Your task to perform on an android device: Go to notification settings Image 0: 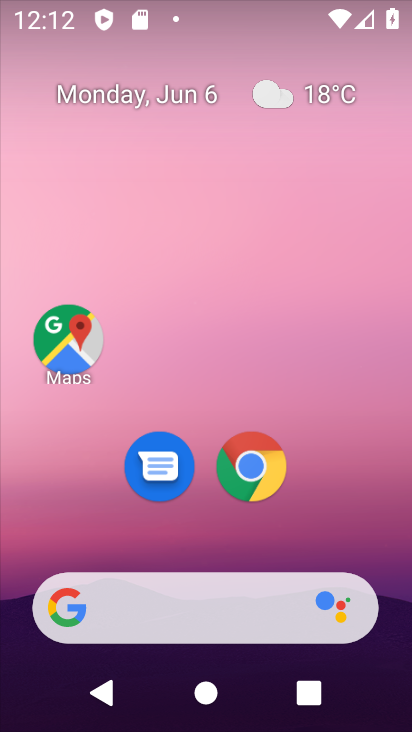
Step 0: drag from (373, 564) to (247, 44)
Your task to perform on an android device: Go to notification settings Image 1: 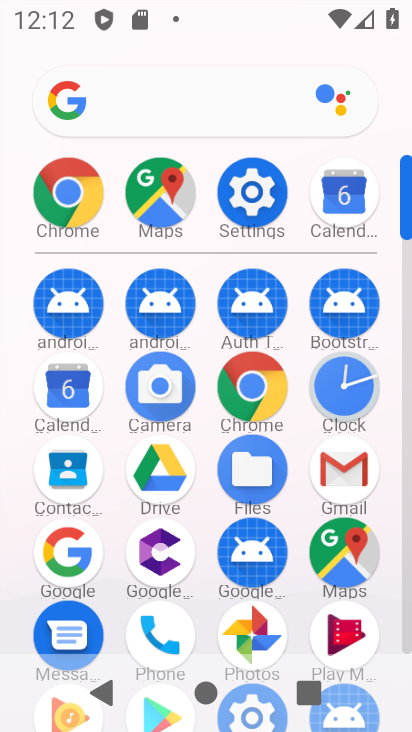
Step 1: drag from (18, 592) to (15, 265)
Your task to perform on an android device: Go to notification settings Image 2: 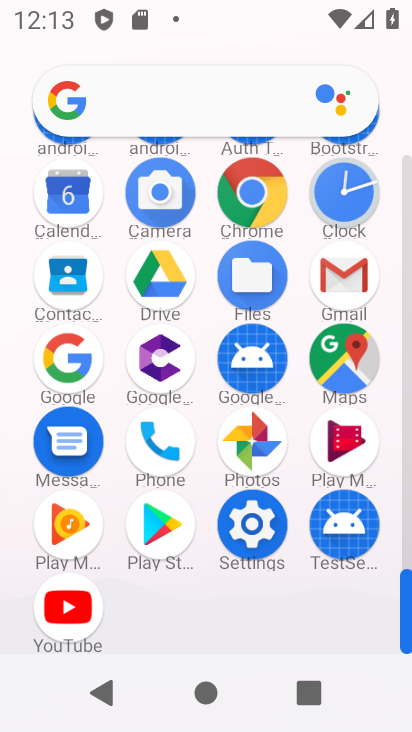
Step 2: click (248, 522)
Your task to perform on an android device: Go to notification settings Image 3: 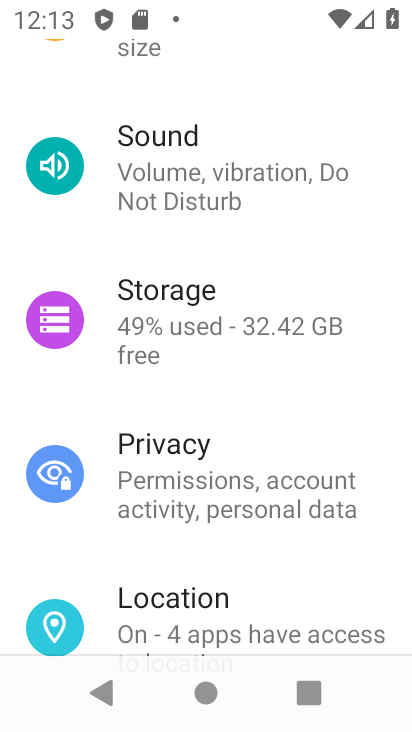
Step 3: drag from (279, 180) to (282, 560)
Your task to perform on an android device: Go to notification settings Image 4: 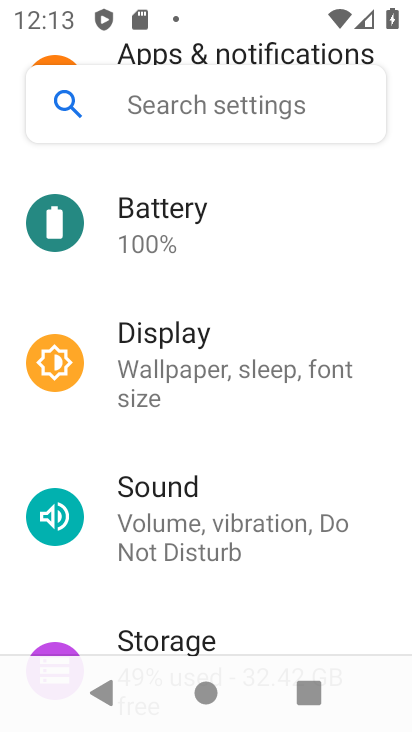
Step 4: drag from (251, 288) to (262, 618)
Your task to perform on an android device: Go to notification settings Image 5: 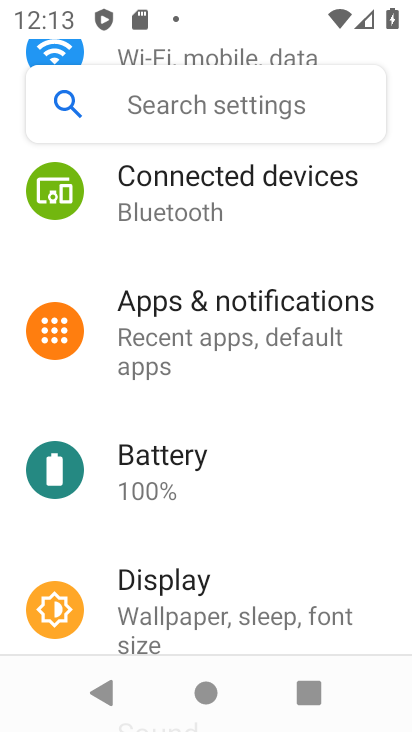
Step 5: click (247, 330)
Your task to perform on an android device: Go to notification settings Image 6: 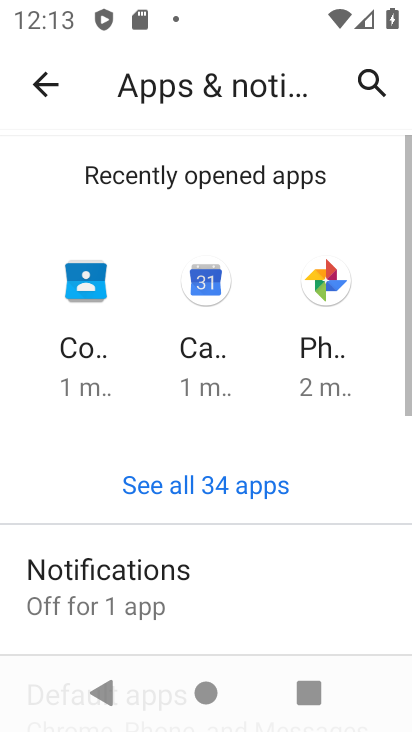
Step 6: drag from (260, 614) to (266, 218)
Your task to perform on an android device: Go to notification settings Image 7: 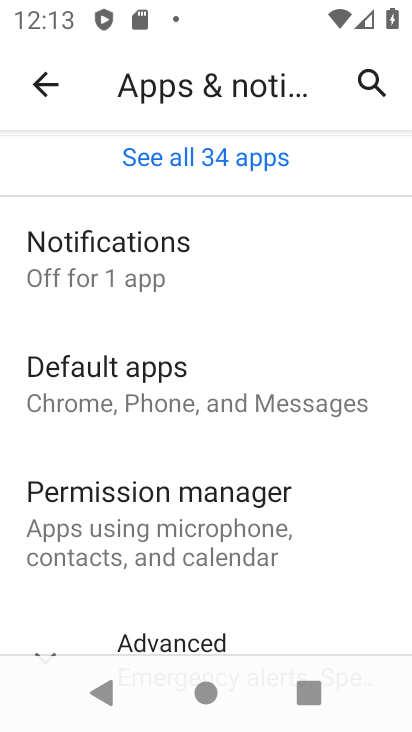
Step 7: click (155, 247)
Your task to perform on an android device: Go to notification settings Image 8: 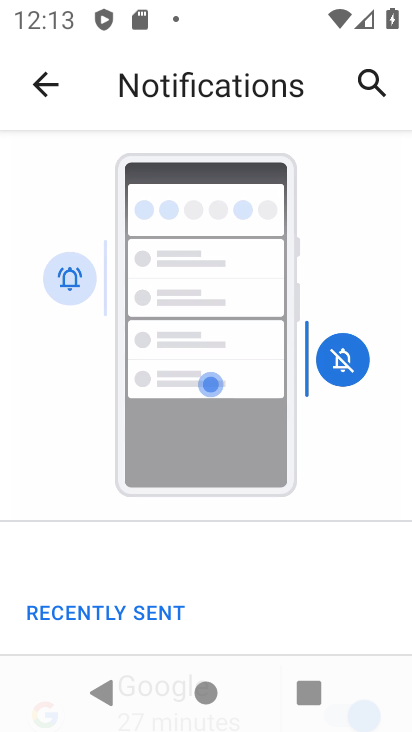
Step 8: drag from (211, 555) to (216, 176)
Your task to perform on an android device: Go to notification settings Image 9: 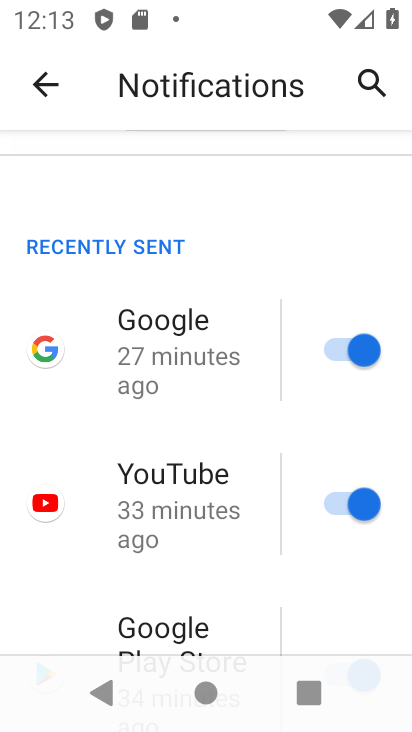
Step 9: drag from (211, 515) to (220, 165)
Your task to perform on an android device: Go to notification settings Image 10: 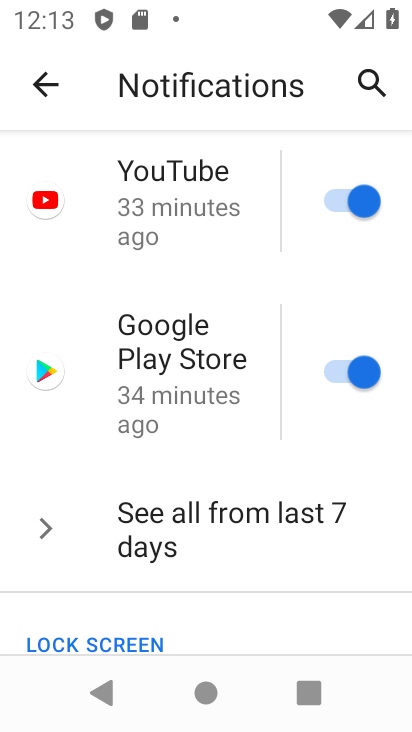
Step 10: drag from (214, 545) to (223, 160)
Your task to perform on an android device: Go to notification settings Image 11: 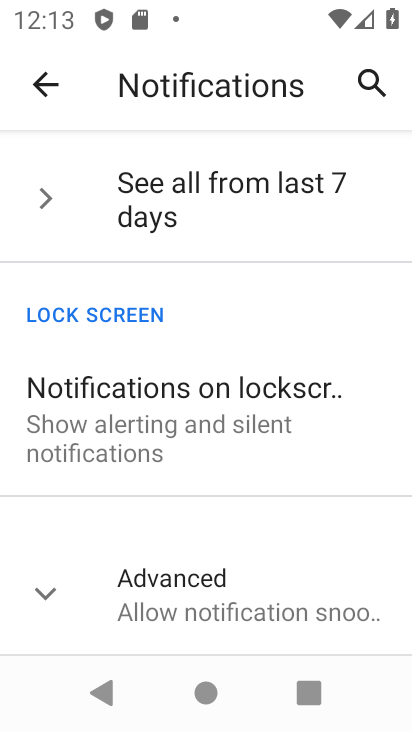
Step 11: click (19, 596)
Your task to perform on an android device: Go to notification settings Image 12: 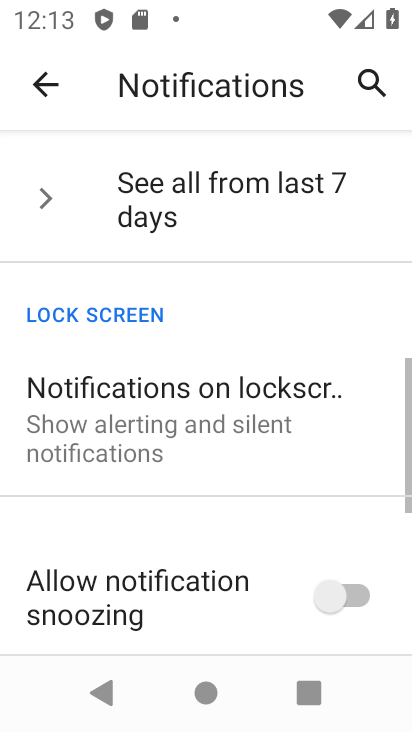
Step 12: task complete